Your task to perform on an android device: Open Android settings Image 0: 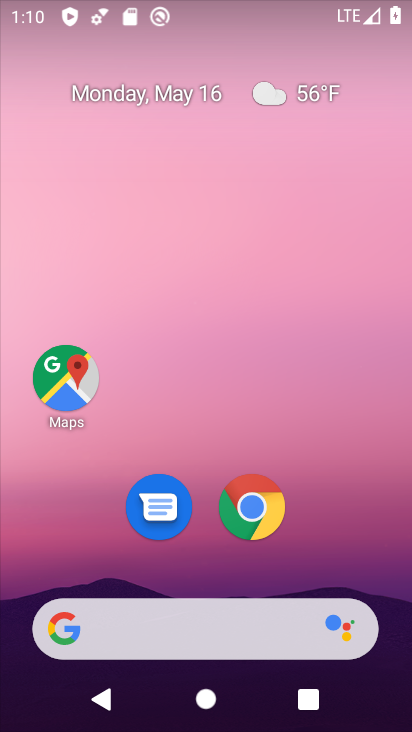
Step 0: drag from (224, 576) to (183, 88)
Your task to perform on an android device: Open Android settings Image 1: 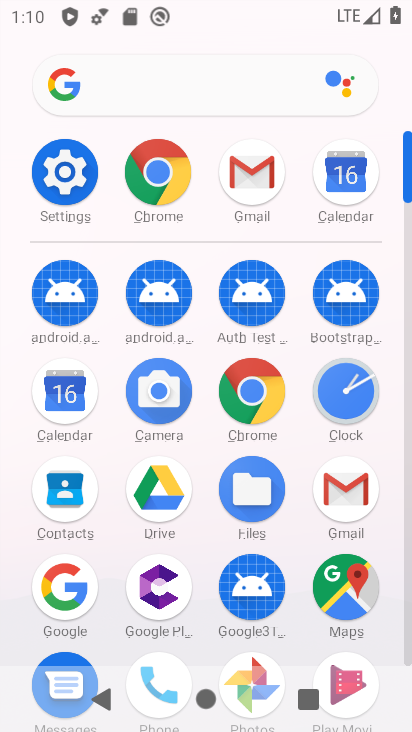
Step 1: click (79, 193)
Your task to perform on an android device: Open Android settings Image 2: 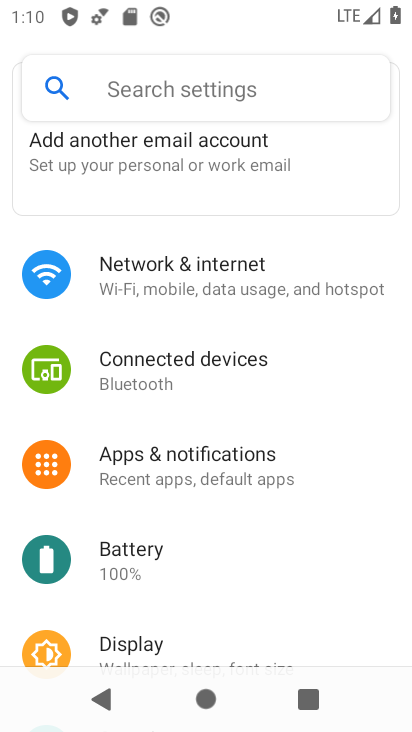
Step 2: task complete